Your task to perform on an android device: allow notifications from all sites in the chrome app Image 0: 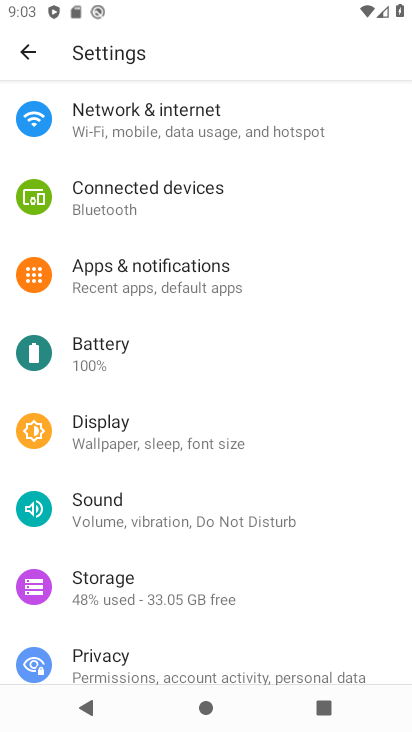
Step 0: click (181, 279)
Your task to perform on an android device: allow notifications from all sites in the chrome app Image 1: 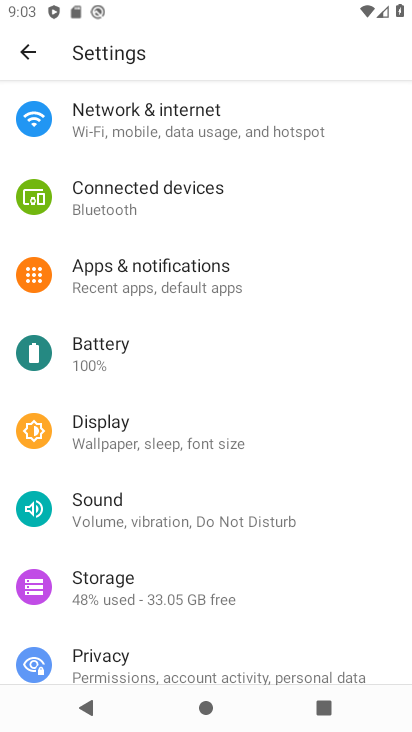
Step 1: press back button
Your task to perform on an android device: allow notifications from all sites in the chrome app Image 2: 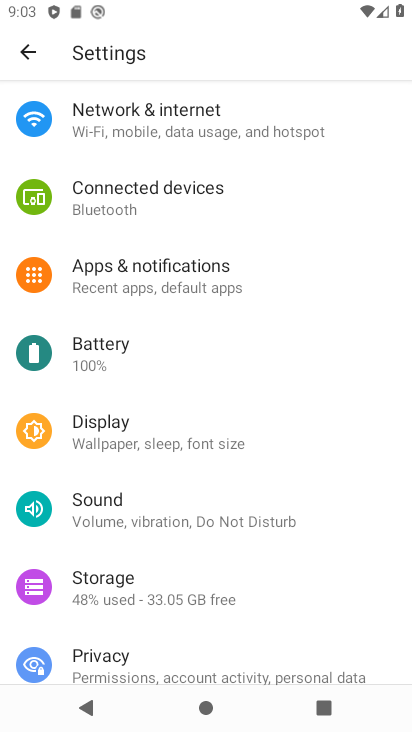
Step 2: press home button
Your task to perform on an android device: allow notifications from all sites in the chrome app Image 3: 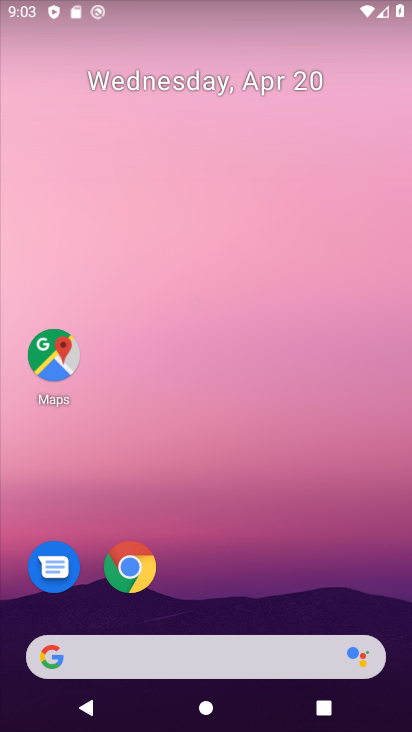
Step 3: click (131, 555)
Your task to perform on an android device: allow notifications from all sites in the chrome app Image 4: 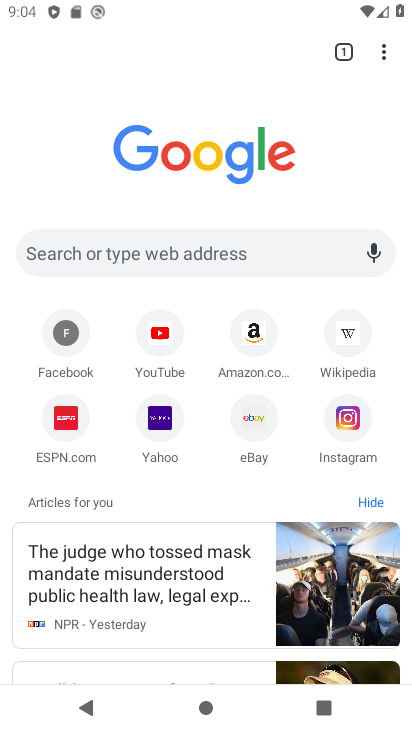
Step 4: drag from (383, 56) to (231, 436)
Your task to perform on an android device: allow notifications from all sites in the chrome app Image 5: 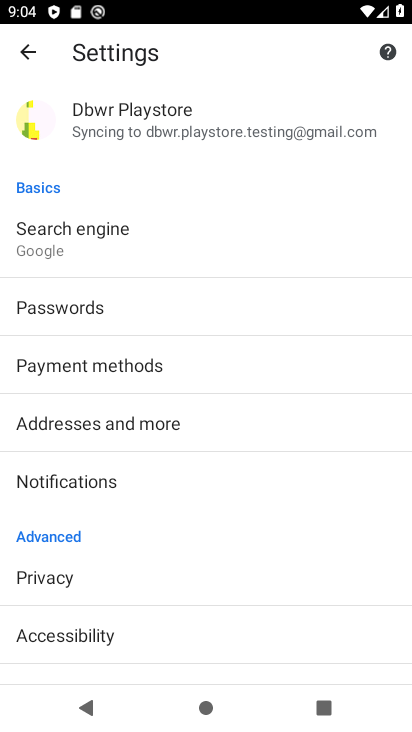
Step 5: drag from (234, 587) to (349, 125)
Your task to perform on an android device: allow notifications from all sites in the chrome app Image 6: 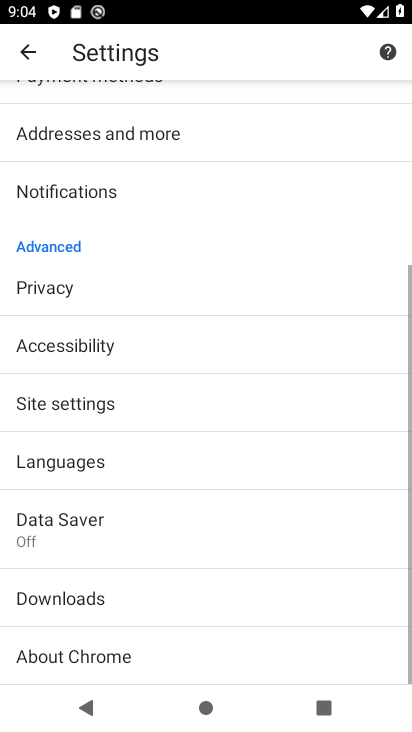
Step 6: click (66, 408)
Your task to perform on an android device: allow notifications from all sites in the chrome app Image 7: 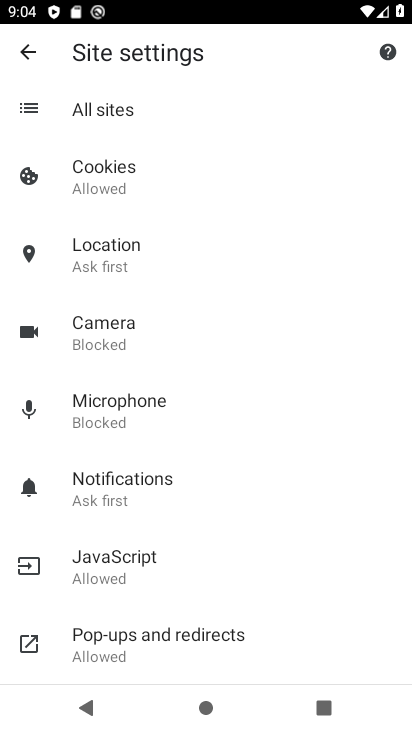
Step 7: click (137, 474)
Your task to perform on an android device: allow notifications from all sites in the chrome app Image 8: 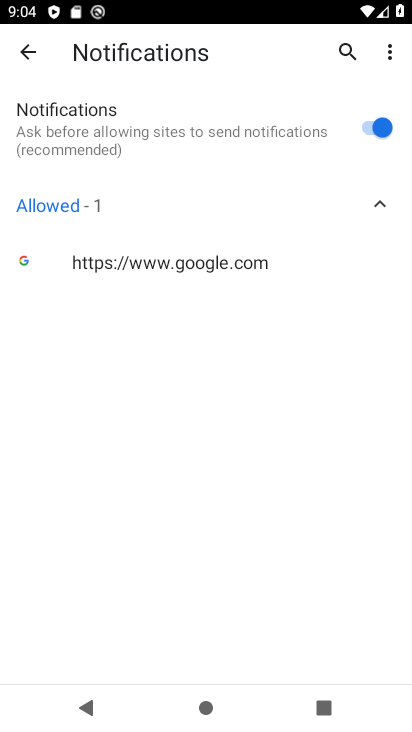
Step 8: task complete